Your task to perform on an android device: When is my next appointment? Image 0: 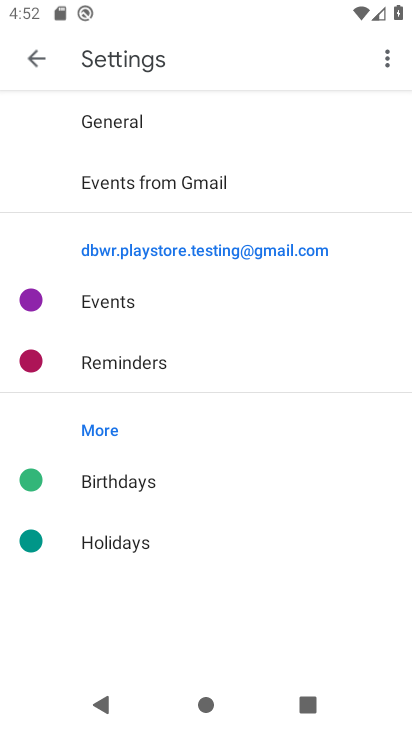
Step 0: press back button
Your task to perform on an android device: When is my next appointment? Image 1: 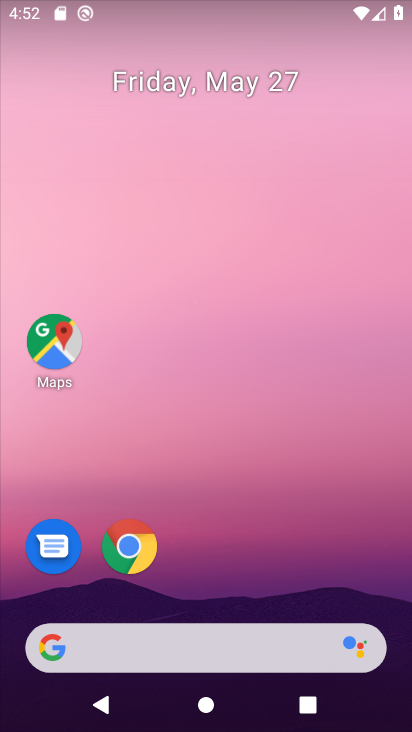
Step 1: drag from (230, 519) to (215, 55)
Your task to perform on an android device: When is my next appointment? Image 2: 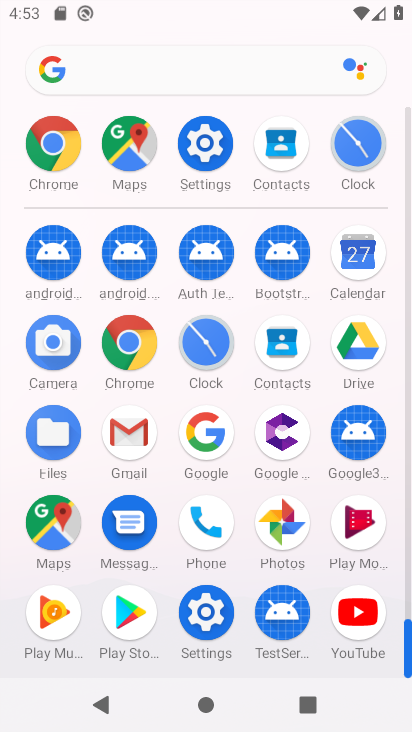
Step 2: drag from (12, 578) to (12, 283)
Your task to perform on an android device: When is my next appointment? Image 3: 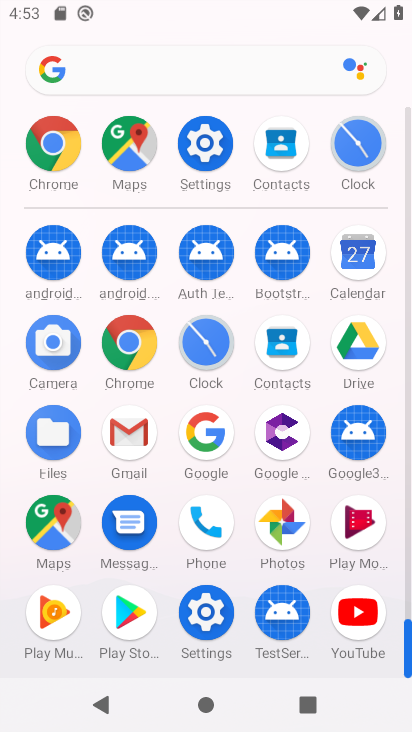
Step 3: click (359, 246)
Your task to perform on an android device: When is my next appointment? Image 4: 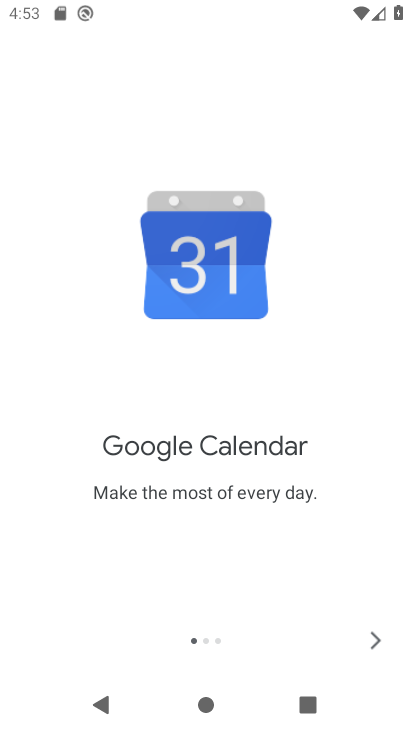
Step 4: click (376, 630)
Your task to perform on an android device: When is my next appointment? Image 5: 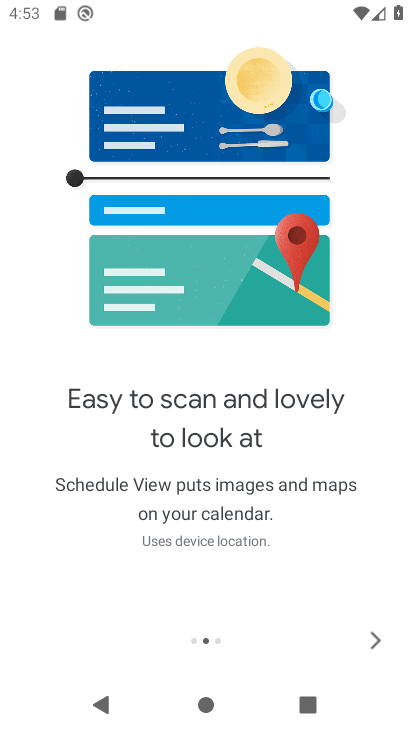
Step 5: click (376, 628)
Your task to perform on an android device: When is my next appointment? Image 6: 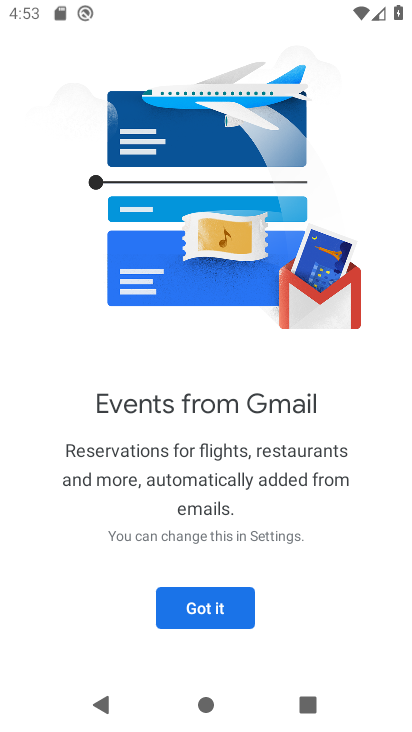
Step 6: click (226, 621)
Your task to perform on an android device: When is my next appointment? Image 7: 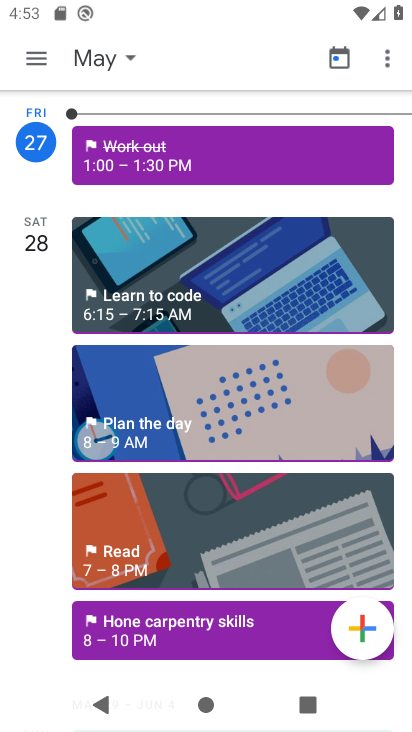
Step 7: click (103, 67)
Your task to perform on an android device: When is my next appointment? Image 8: 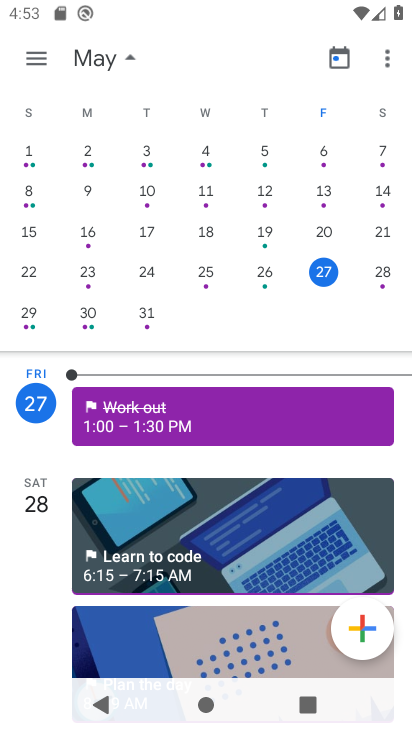
Step 8: click (32, 64)
Your task to perform on an android device: When is my next appointment? Image 9: 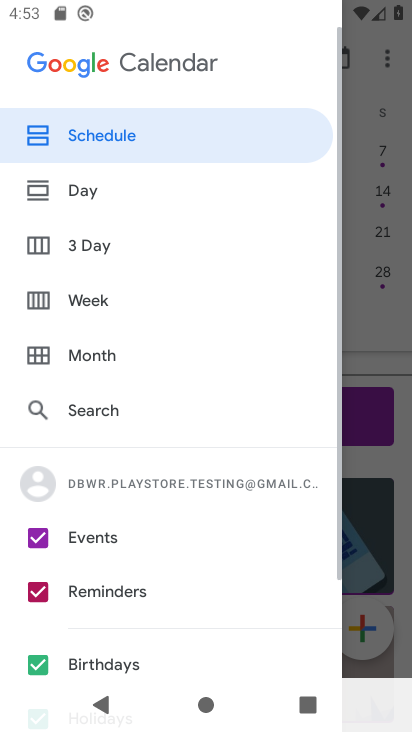
Step 9: click (92, 132)
Your task to perform on an android device: When is my next appointment? Image 10: 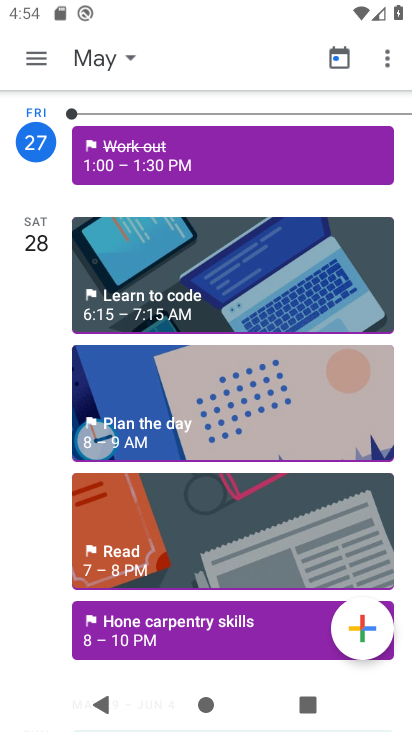
Step 10: task complete